Your task to perform on an android device: turn off airplane mode Image 0: 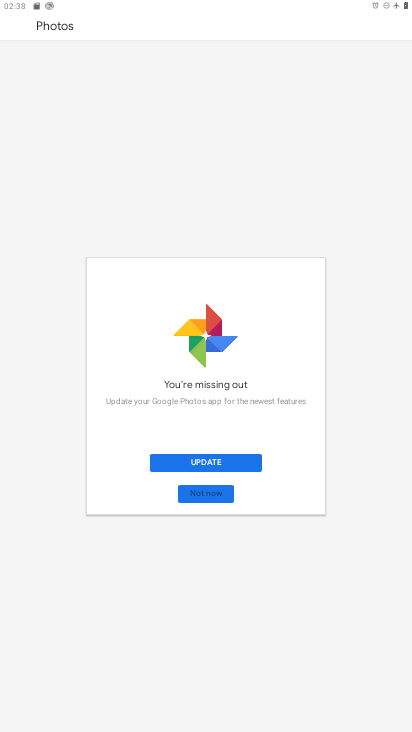
Step 0: press home button
Your task to perform on an android device: turn off airplane mode Image 1: 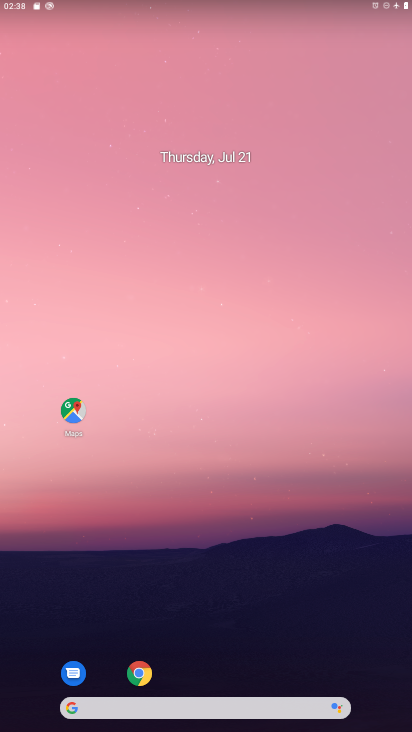
Step 1: drag from (200, 626) to (203, 370)
Your task to perform on an android device: turn off airplane mode Image 2: 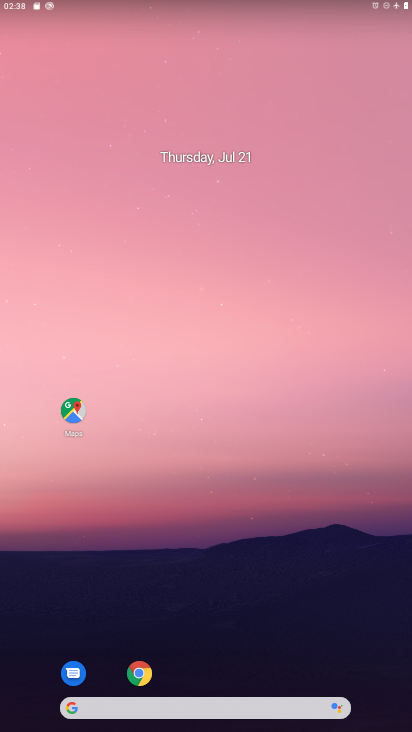
Step 2: drag from (221, 639) to (221, 337)
Your task to perform on an android device: turn off airplane mode Image 3: 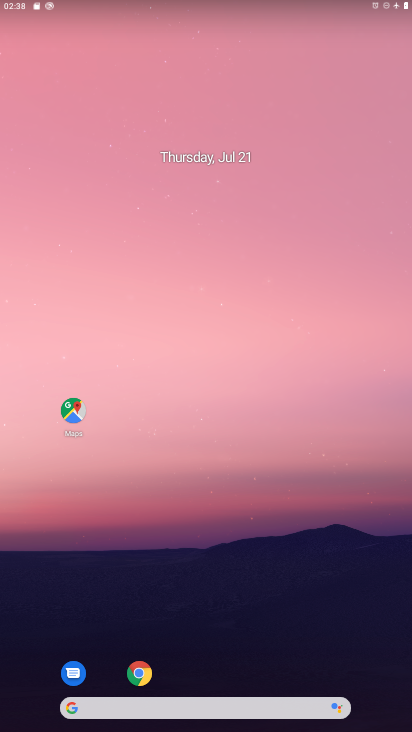
Step 3: drag from (234, 607) to (239, 266)
Your task to perform on an android device: turn off airplane mode Image 4: 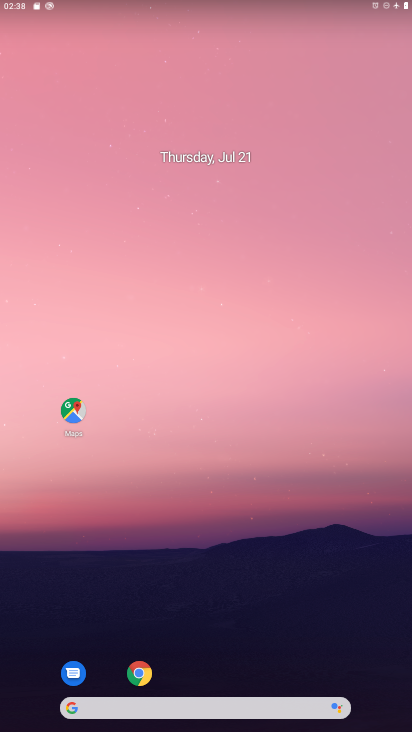
Step 4: drag from (210, 651) to (213, 314)
Your task to perform on an android device: turn off airplane mode Image 5: 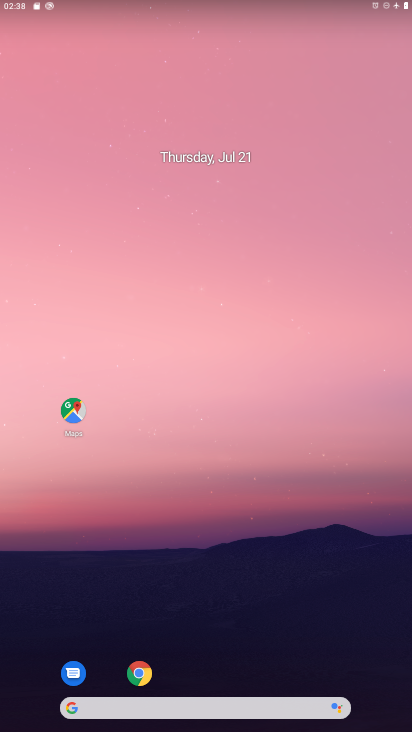
Step 5: drag from (306, 655) to (305, 95)
Your task to perform on an android device: turn off airplane mode Image 6: 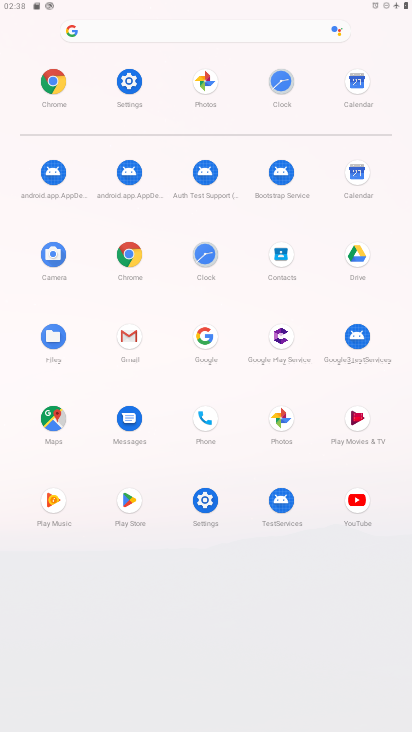
Step 6: click (121, 80)
Your task to perform on an android device: turn off airplane mode Image 7: 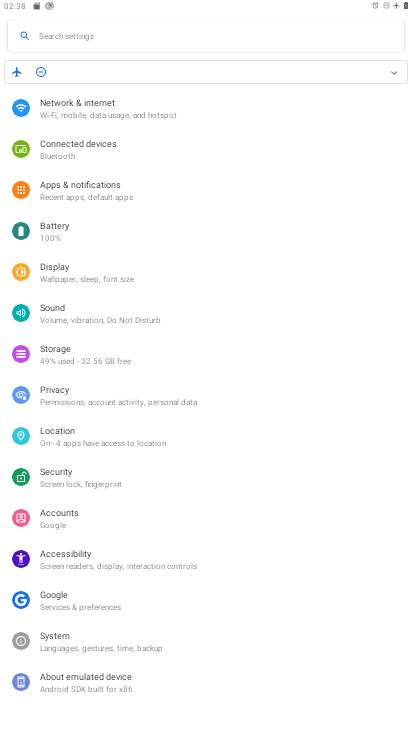
Step 7: click (69, 110)
Your task to perform on an android device: turn off airplane mode Image 8: 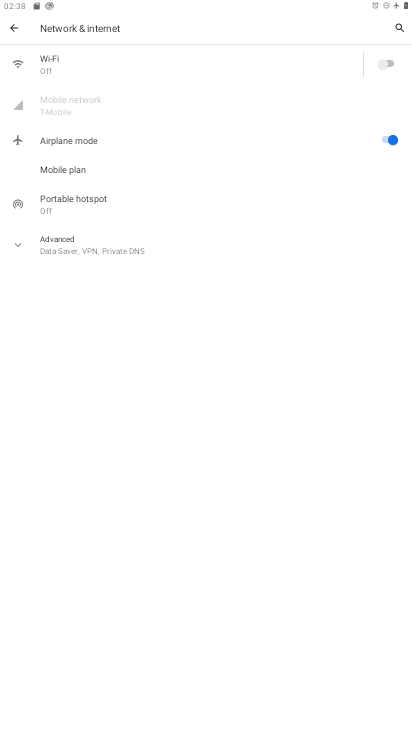
Step 8: click (385, 131)
Your task to perform on an android device: turn off airplane mode Image 9: 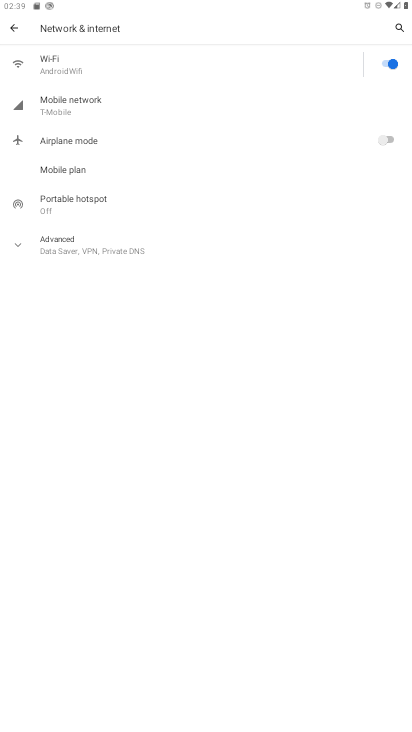
Step 9: task complete